Your task to perform on an android device: Open Yahoo.com Image 0: 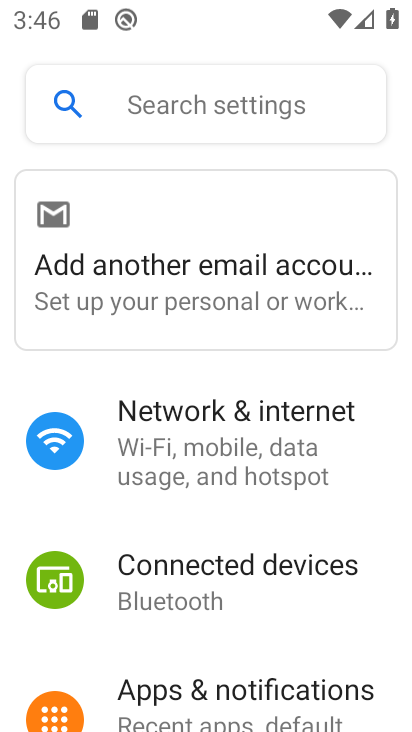
Step 0: press back button
Your task to perform on an android device: Open Yahoo.com Image 1: 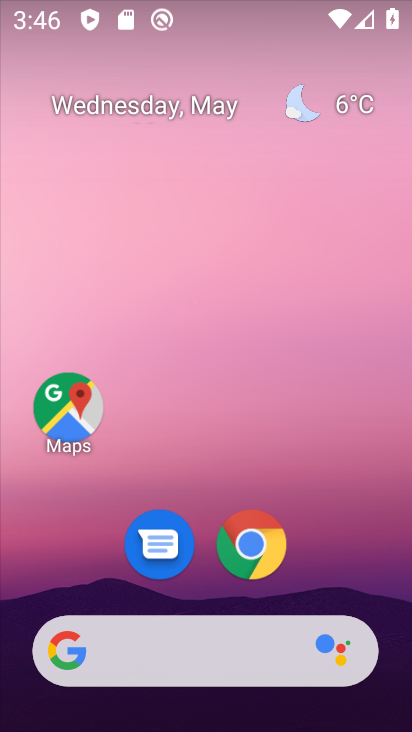
Step 1: click (252, 561)
Your task to perform on an android device: Open Yahoo.com Image 2: 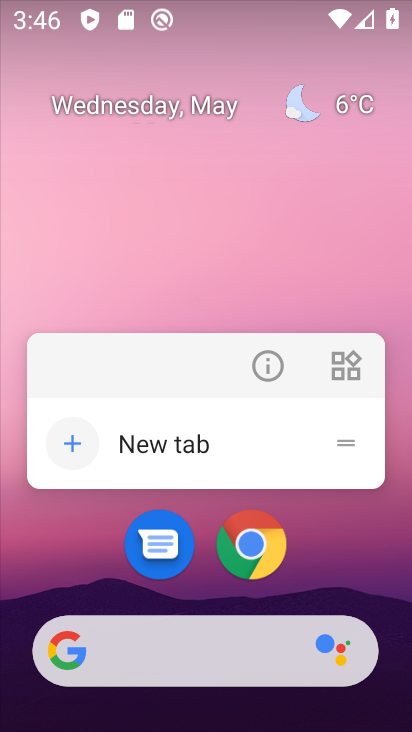
Step 2: click (251, 568)
Your task to perform on an android device: Open Yahoo.com Image 3: 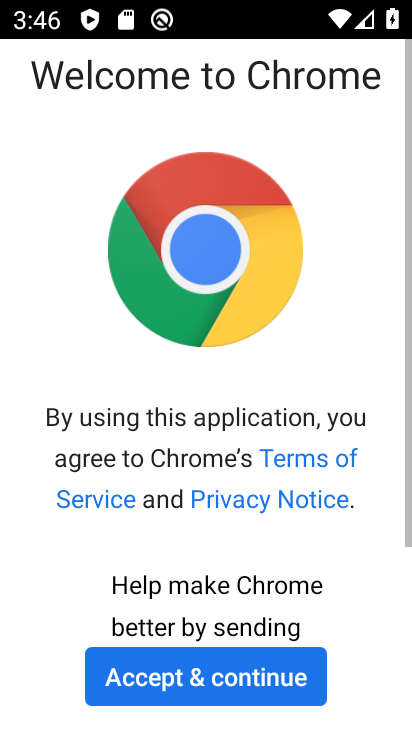
Step 3: click (234, 694)
Your task to perform on an android device: Open Yahoo.com Image 4: 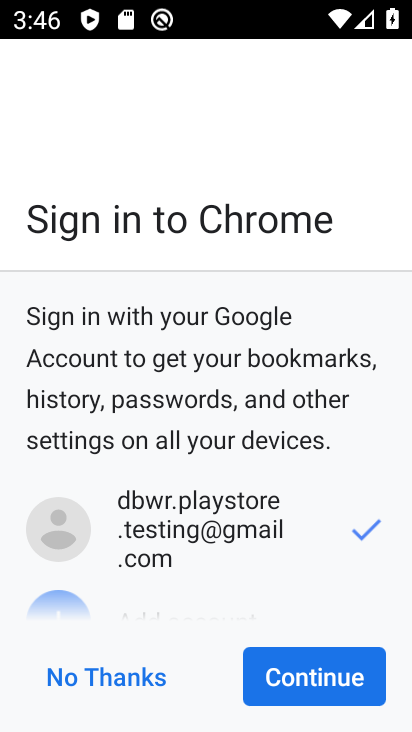
Step 4: click (343, 704)
Your task to perform on an android device: Open Yahoo.com Image 5: 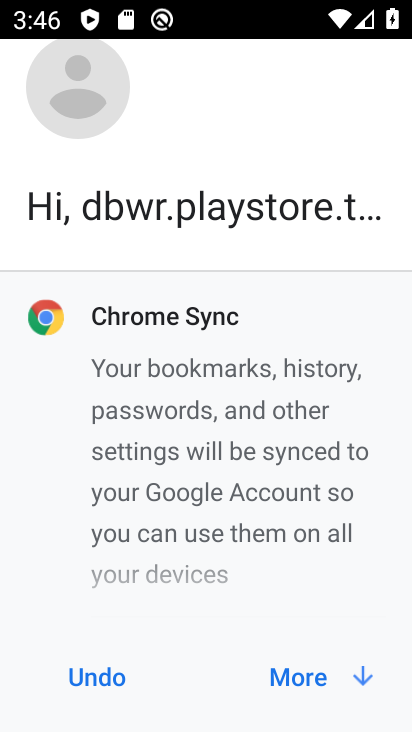
Step 5: click (340, 700)
Your task to perform on an android device: Open Yahoo.com Image 6: 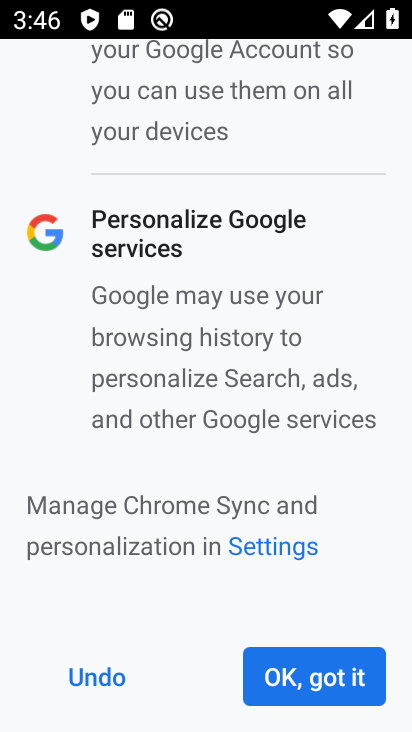
Step 6: click (334, 688)
Your task to perform on an android device: Open Yahoo.com Image 7: 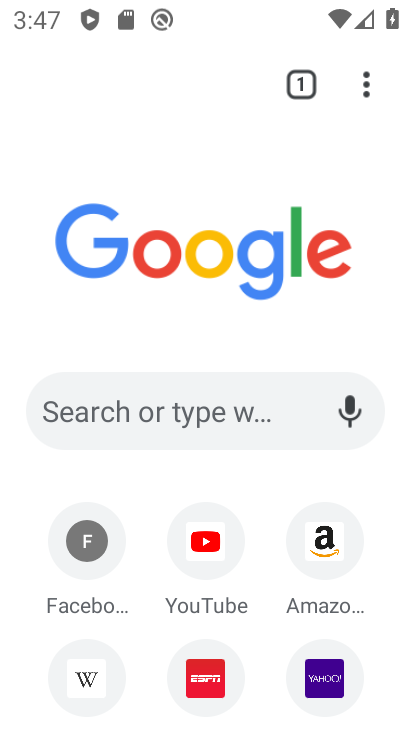
Step 7: click (320, 682)
Your task to perform on an android device: Open Yahoo.com Image 8: 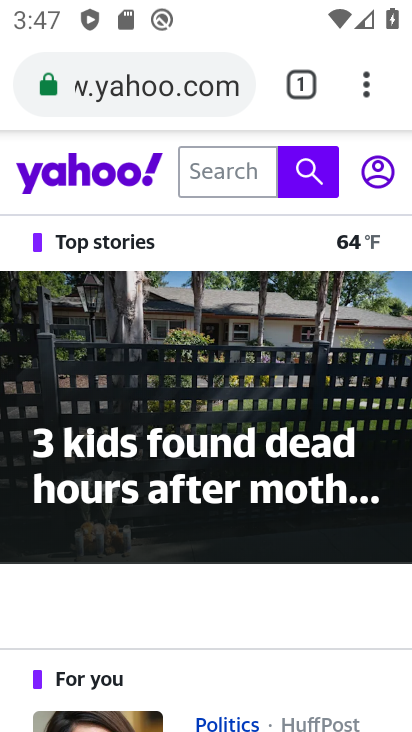
Step 8: task complete